Your task to perform on an android device: When is my next meeting? Image 0: 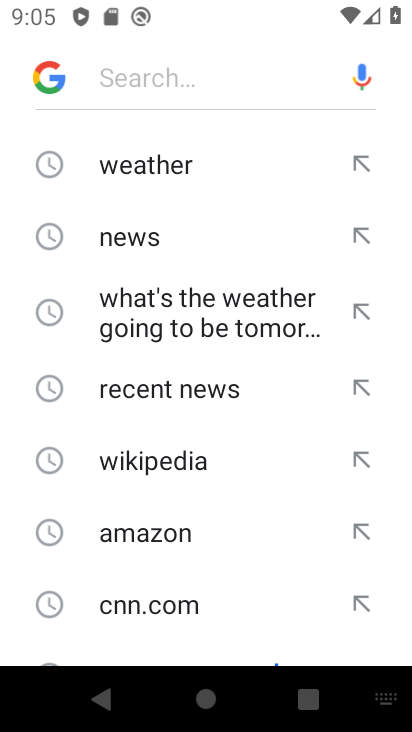
Step 0: press home button
Your task to perform on an android device: When is my next meeting? Image 1: 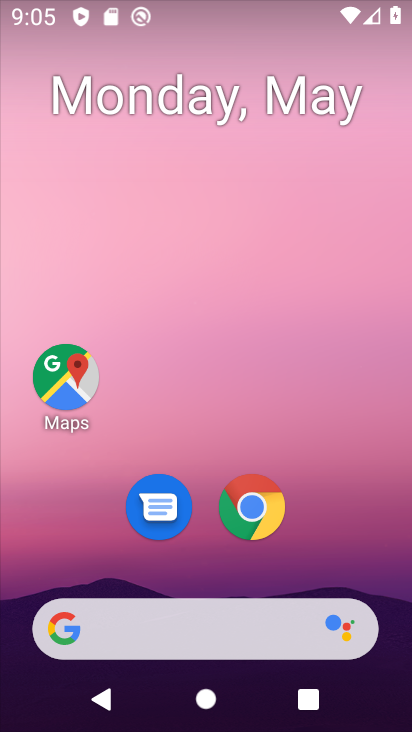
Step 1: drag from (174, 633) to (181, 112)
Your task to perform on an android device: When is my next meeting? Image 2: 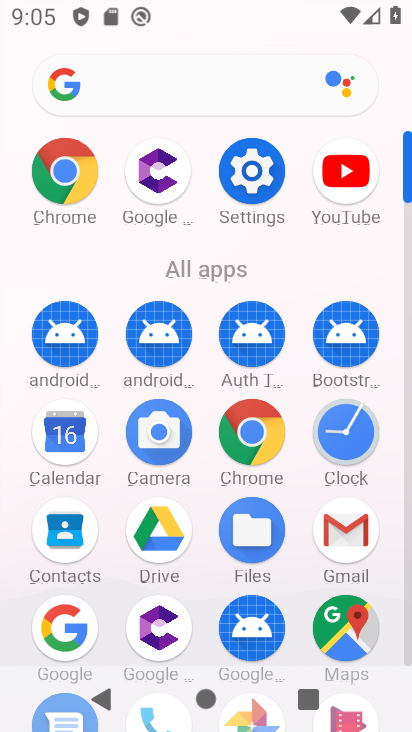
Step 2: click (253, 446)
Your task to perform on an android device: When is my next meeting? Image 3: 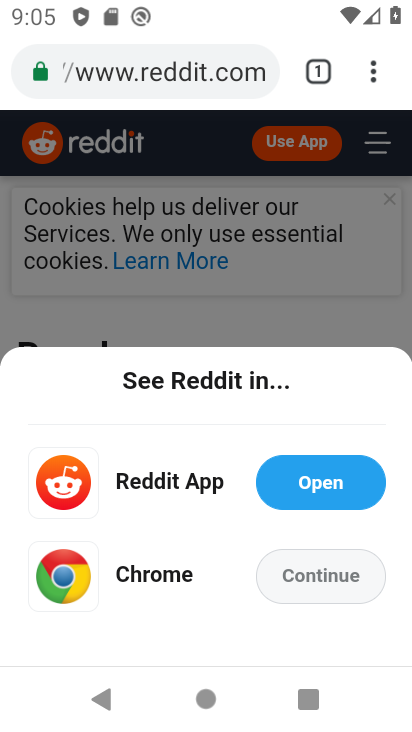
Step 3: press home button
Your task to perform on an android device: When is my next meeting? Image 4: 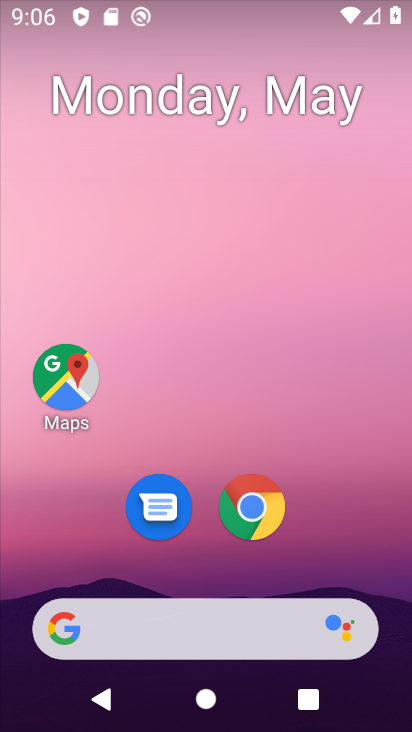
Step 4: drag from (272, 632) to (244, 176)
Your task to perform on an android device: When is my next meeting? Image 5: 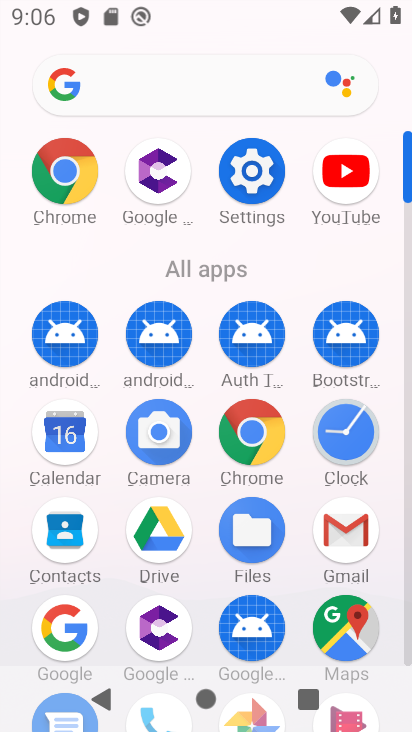
Step 5: click (56, 439)
Your task to perform on an android device: When is my next meeting? Image 6: 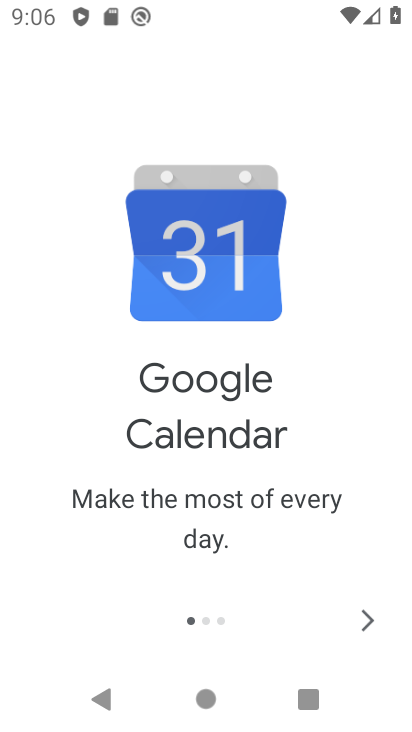
Step 6: click (368, 623)
Your task to perform on an android device: When is my next meeting? Image 7: 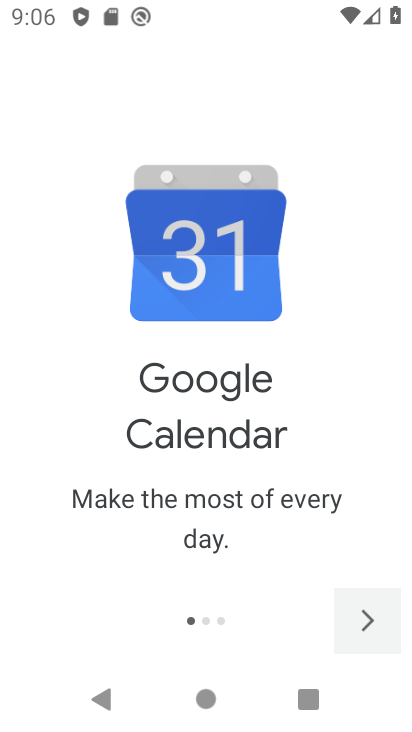
Step 7: click (364, 625)
Your task to perform on an android device: When is my next meeting? Image 8: 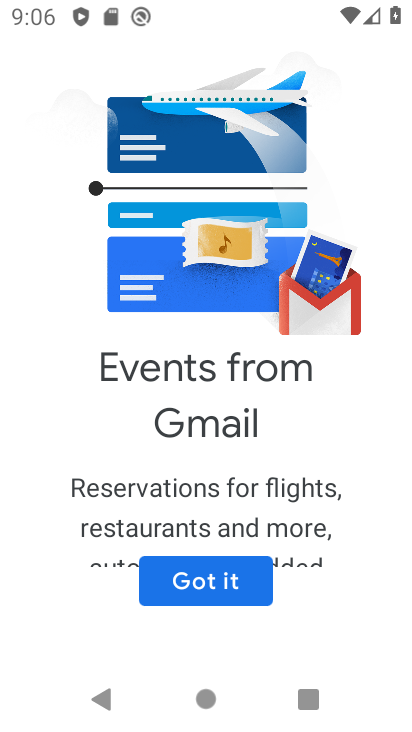
Step 8: click (249, 580)
Your task to perform on an android device: When is my next meeting? Image 9: 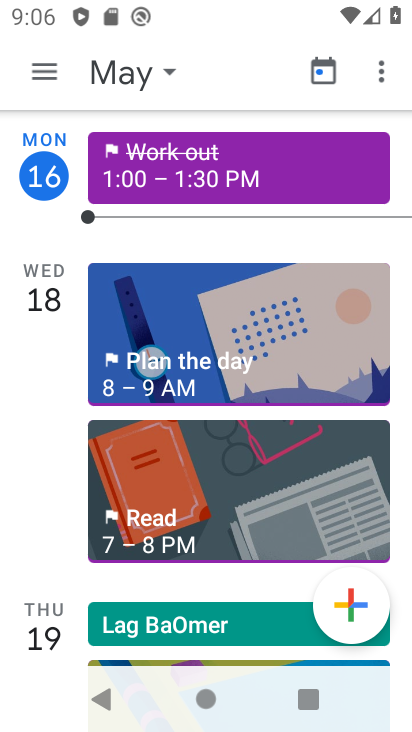
Step 9: click (164, 72)
Your task to perform on an android device: When is my next meeting? Image 10: 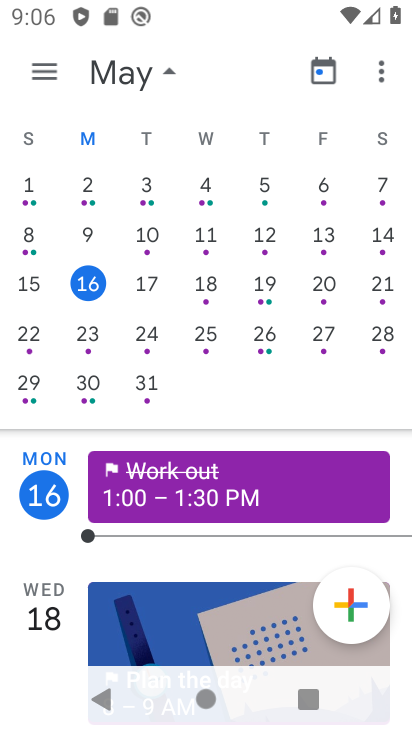
Step 10: click (145, 283)
Your task to perform on an android device: When is my next meeting? Image 11: 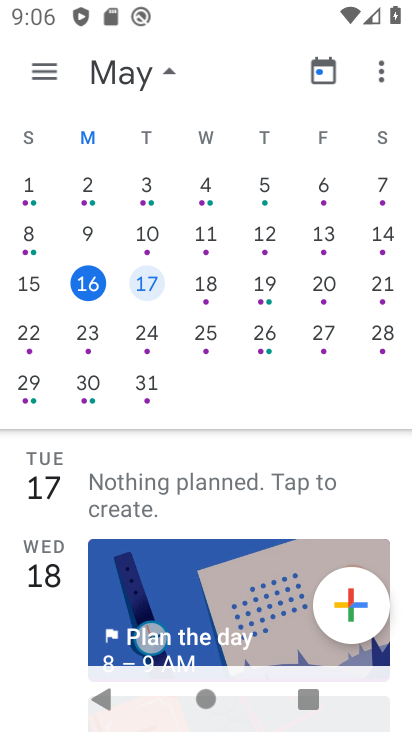
Step 11: click (138, 280)
Your task to perform on an android device: When is my next meeting? Image 12: 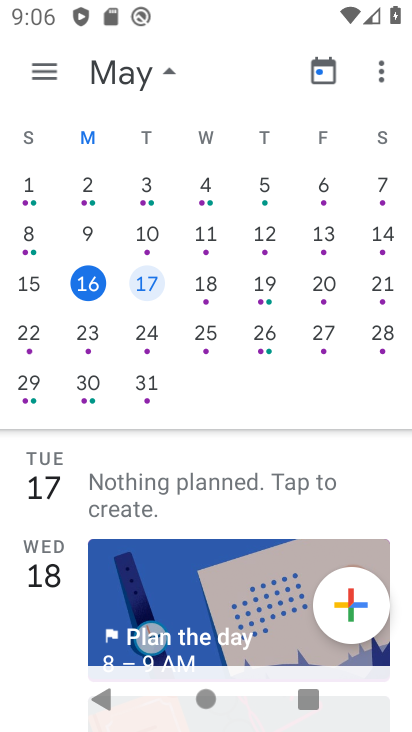
Step 12: click (156, 283)
Your task to perform on an android device: When is my next meeting? Image 13: 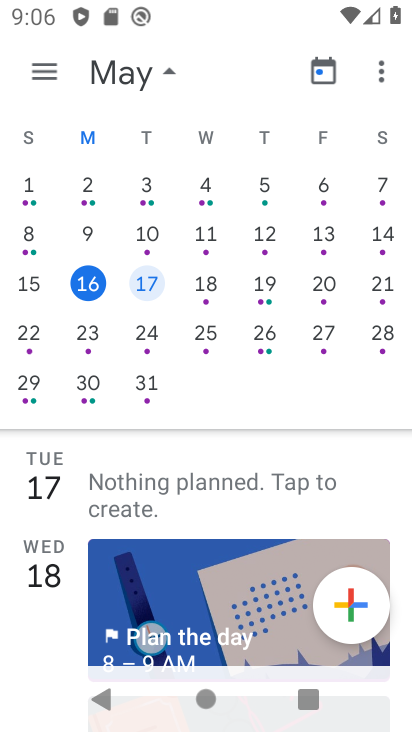
Step 13: click (156, 283)
Your task to perform on an android device: When is my next meeting? Image 14: 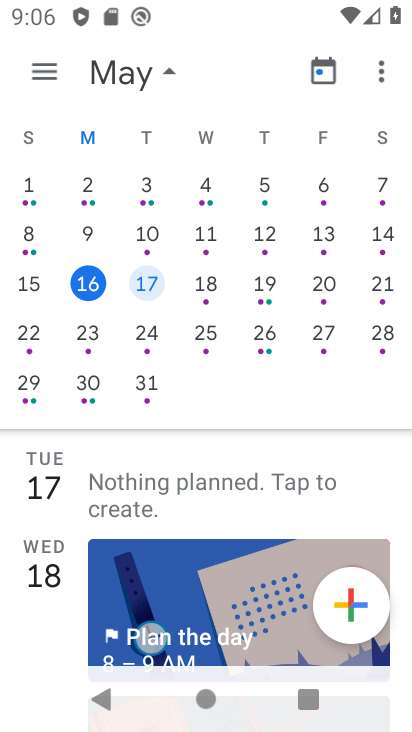
Step 14: click (156, 283)
Your task to perform on an android device: When is my next meeting? Image 15: 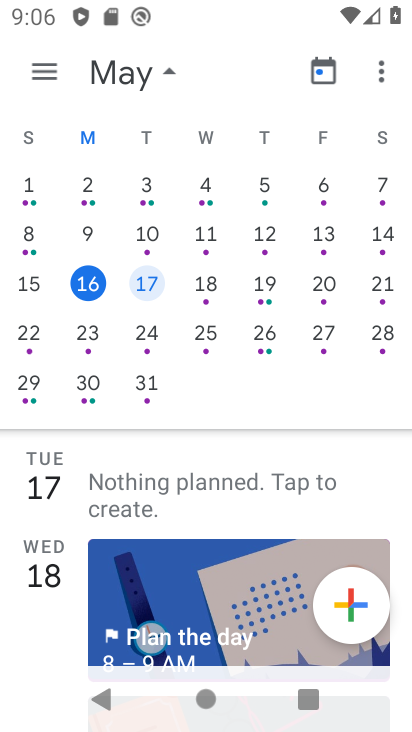
Step 15: click (255, 473)
Your task to perform on an android device: When is my next meeting? Image 16: 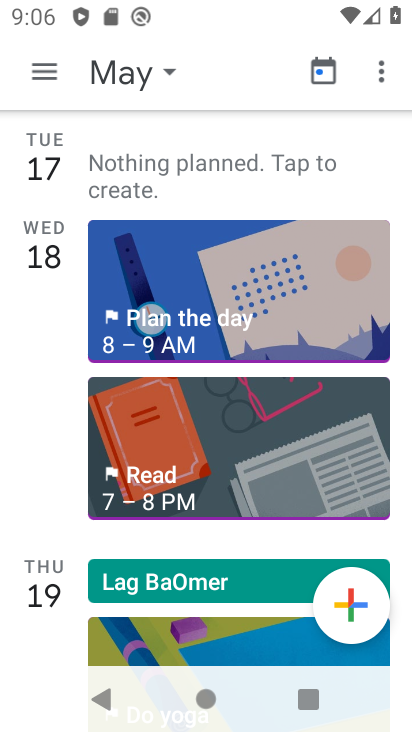
Step 16: task complete